Your task to perform on an android device: turn off picture-in-picture Image 0: 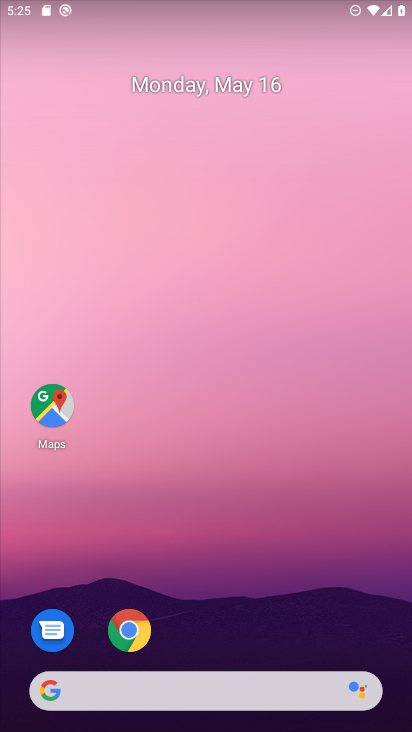
Step 0: press home button
Your task to perform on an android device: turn off picture-in-picture Image 1: 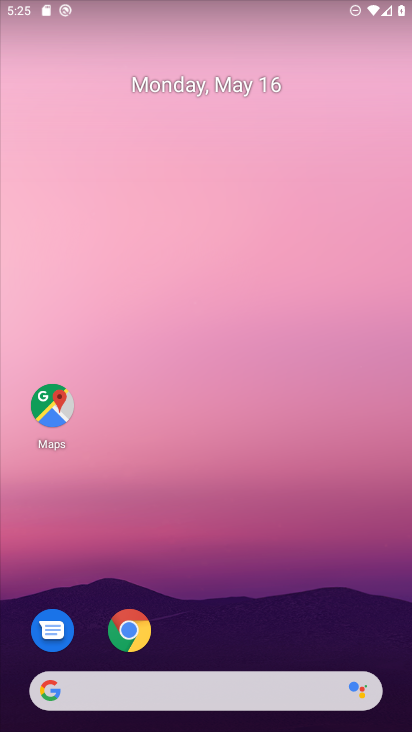
Step 1: click (111, 644)
Your task to perform on an android device: turn off picture-in-picture Image 2: 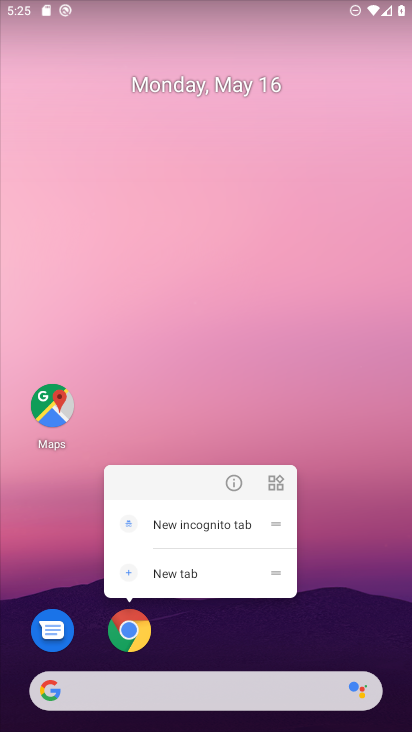
Step 2: click (238, 485)
Your task to perform on an android device: turn off picture-in-picture Image 3: 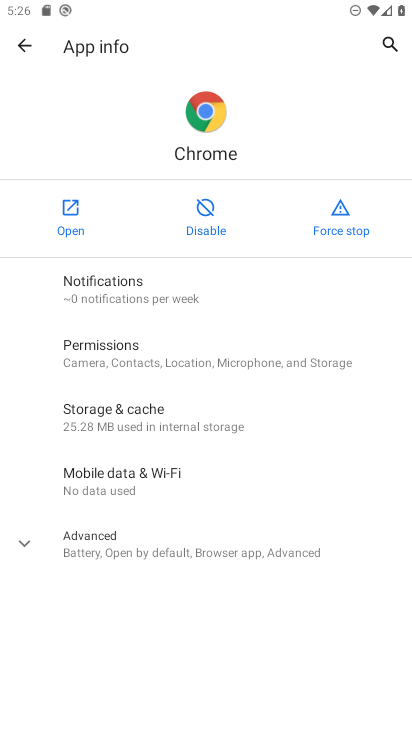
Step 3: click (98, 559)
Your task to perform on an android device: turn off picture-in-picture Image 4: 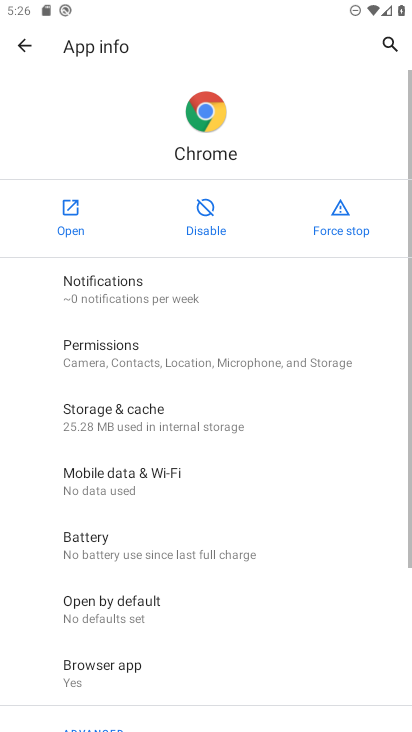
Step 4: drag from (110, 677) to (130, 424)
Your task to perform on an android device: turn off picture-in-picture Image 5: 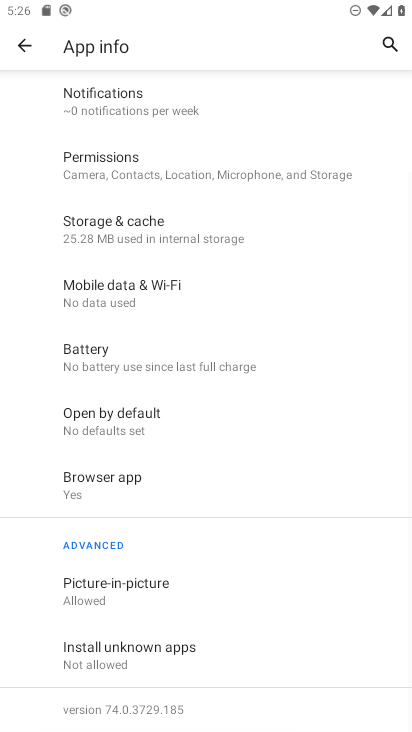
Step 5: click (140, 582)
Your task to perform on an android device: turn off picture-in-picture Image 6: 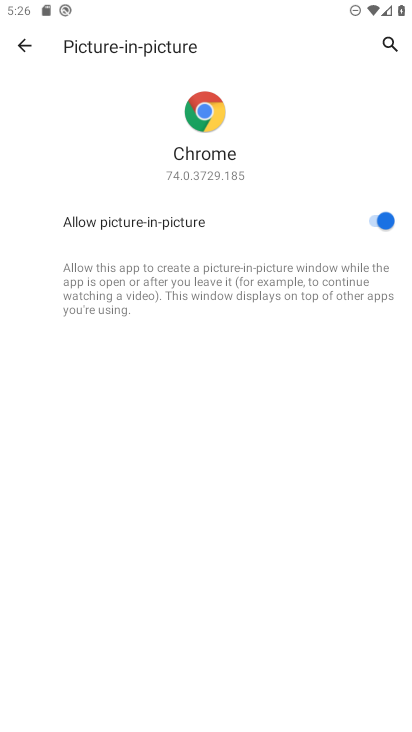
Step 6: click (374, 221)
Your task to perform on an android device: turn off picture-in-picture Image 7: 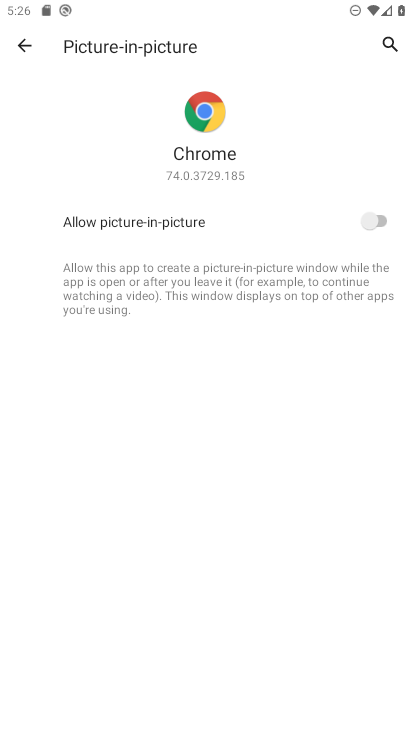
Step 7: task complete